Your task to perform on an android device: toggle show notifications on the lock screen Image 0: 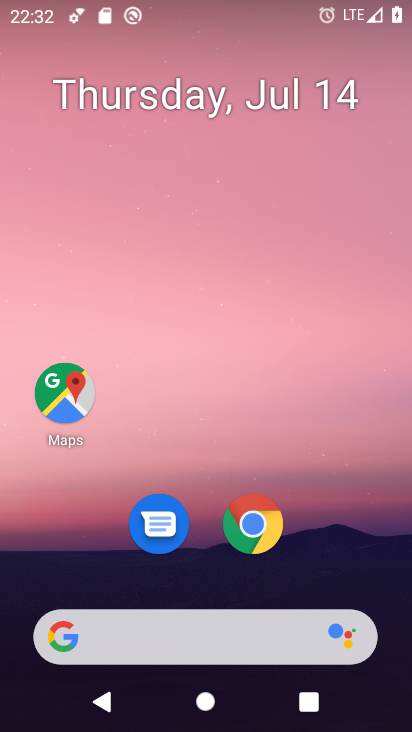
Step 0: drag from (225, 448) to (349, 8)
Your task to perform on an android device: toggle show notifications on the lock screen Image 1: 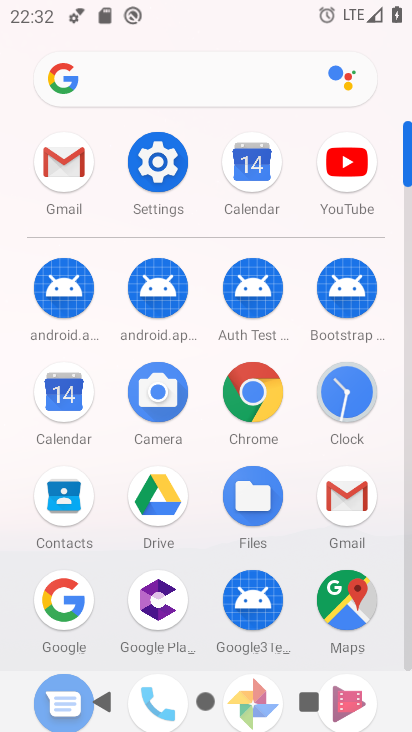
Step 1: click (162, 165)
Your task to perform on an android device: toggle show notifications on the lock screen Image 2: 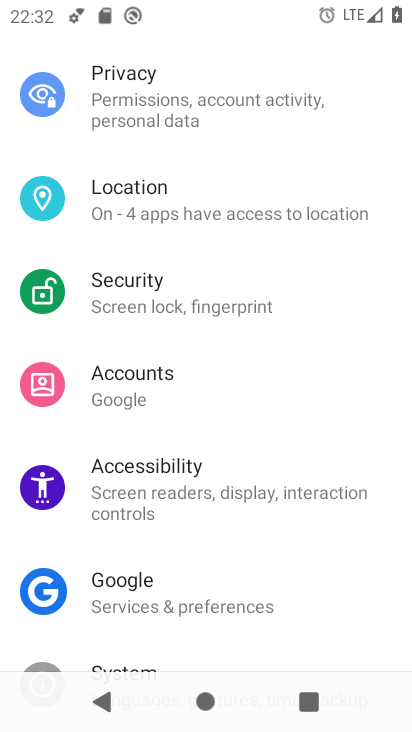
Step 2: drag from (243, 169) to (226, 622)
Your task to perform on an android device: toggle show notifications on the lock screen Image 3: 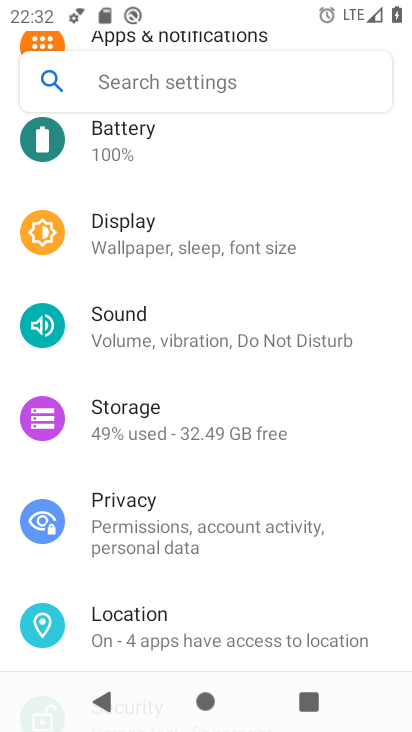
Step 3: drag from (269, 167) to (277, 576)
Your task to perform on an android device: toggle show notifications on the lock screen Image 4: 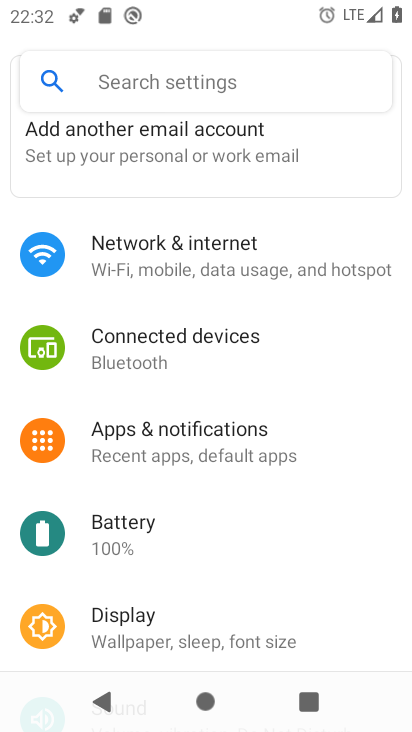
Step 4: click (222, 443)
Your task to perform on an android device: toggle show notifications on the lock screen Image 5: 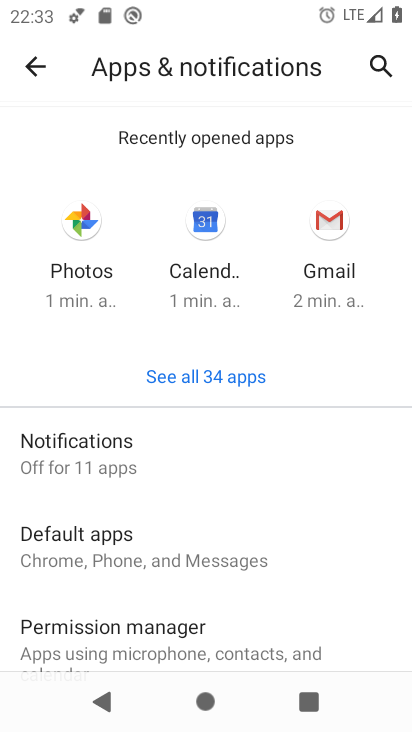
Step 5: drag from (196, 505) to (216, 335)
Your task to perform on an android device: toggle show notifications on the lock screen Image 6: 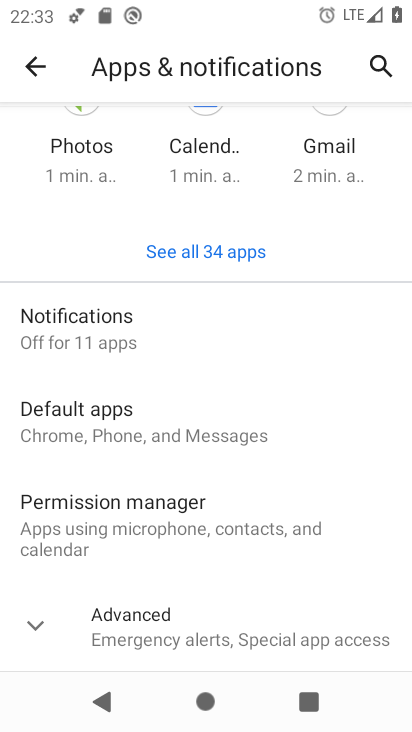
Step 6: click (106, 322)
Your task to perform on an android device: toggle show notifications on the lock screen Image 7: 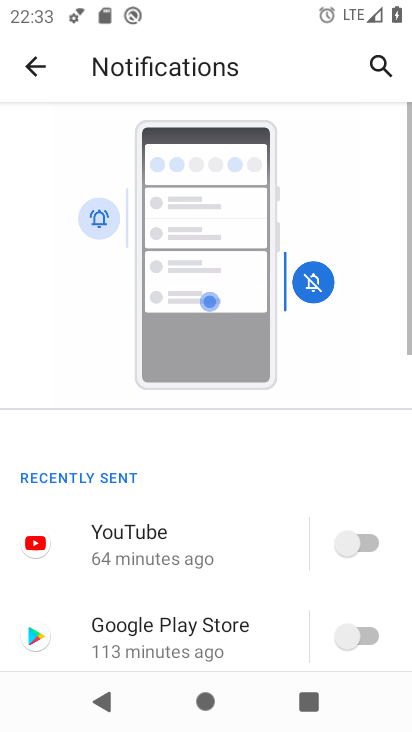
Step 7: drag from (207, 523) to (228, 63)
Your task to perform on an android device: toggle show notifications on the lock screen Image 8: 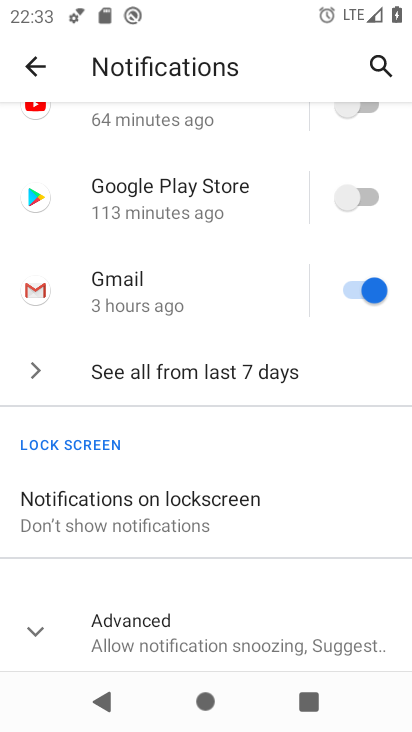
Step 8: click (217, 503)
Your task to perform on an android device: toggle show notifications on the lock screen Image 9: 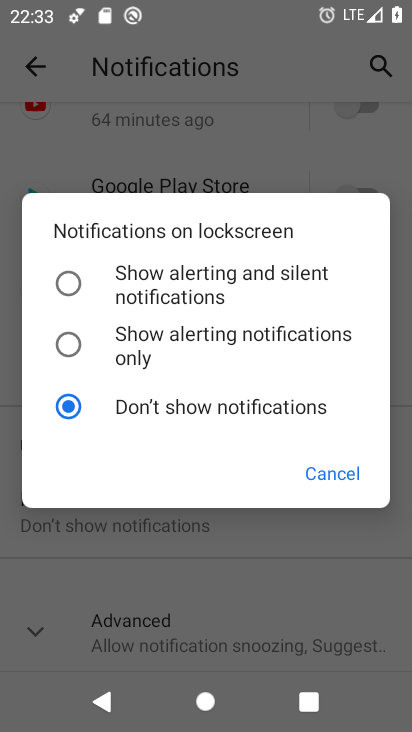
Step 9: click (69, 286)
Your task to perform on an android device: toggle show notifications on the lock screen Image 10: 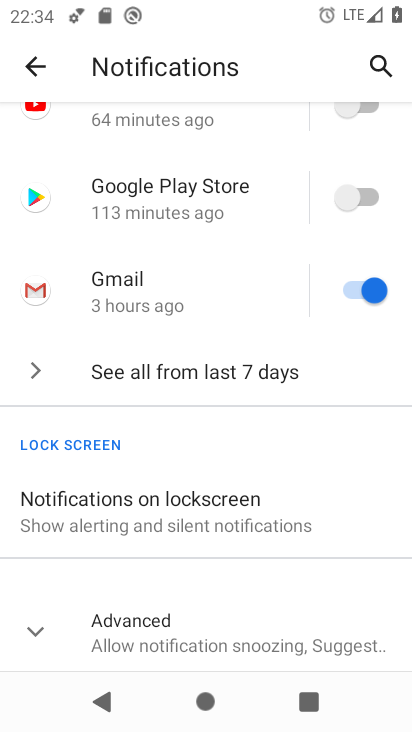
Step 10: task complete